Your task to perform on an android device: Go to battery settings Image 0: 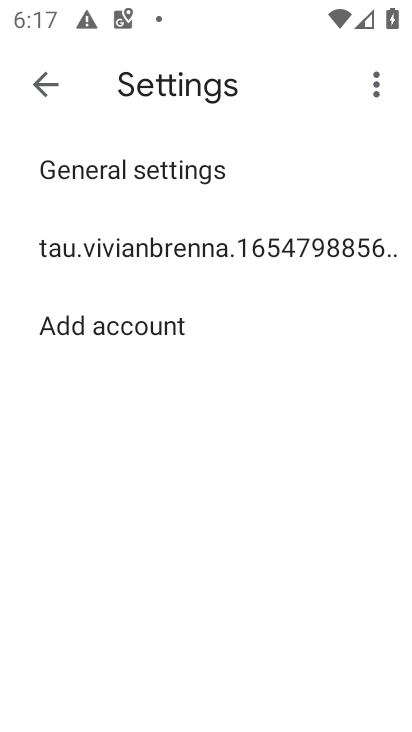
Step 0: press home button
Your task to perform on an android device: Go to battery settings Image 1: 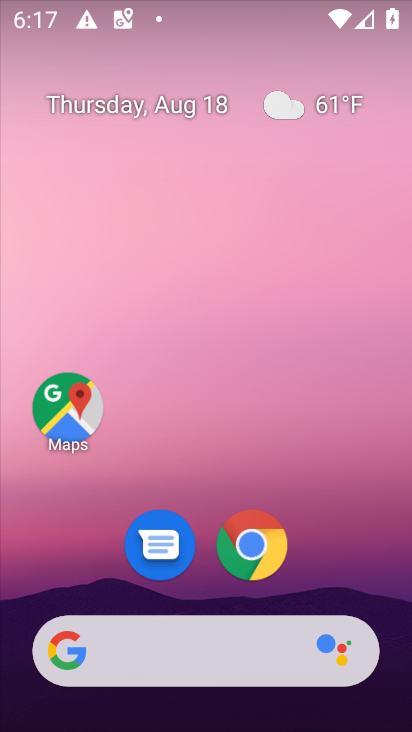
Step 1: drag from (335, 558) to (226, 75)
Your task to perform on an android device: Go to battery settings Image 2: 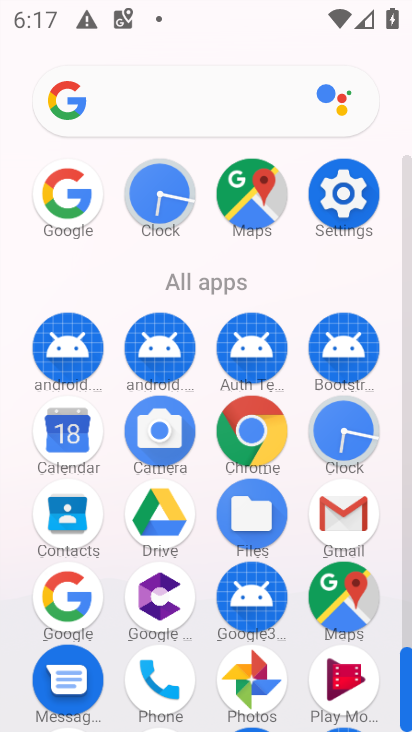
Step 2: click (344, 190)
Your task to perform on an android device: Go to battery settings Image 3: 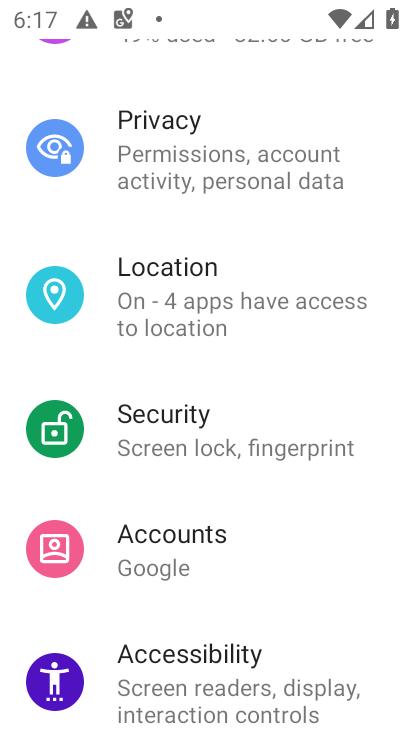
Step 3: drag from (244, 81) to (287, 714)
Your task to perform on an android device: Go to battery settings Image 4: 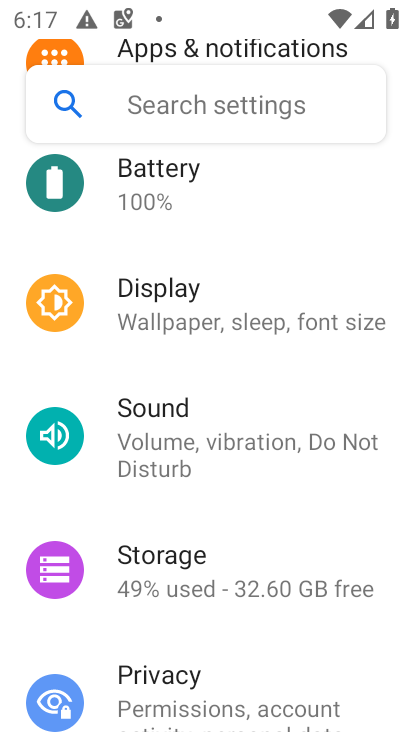
Step 4: click (146, 160)
Your task to perform on an android device: Go to battery settings Image 5: 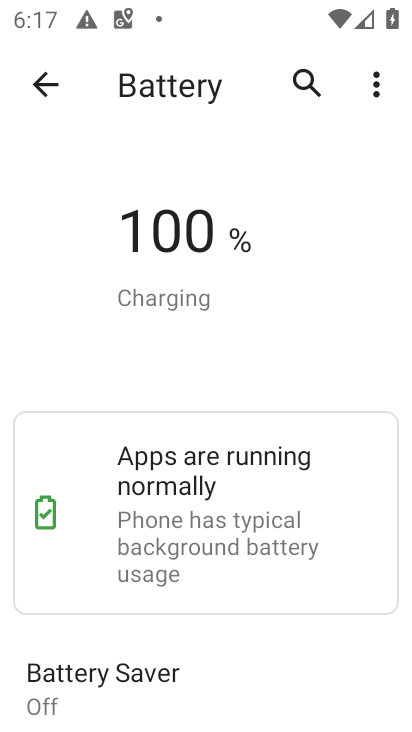
Step 5: task complete